Your task to perform on an android device: see creations saved in the google photos Image 0: 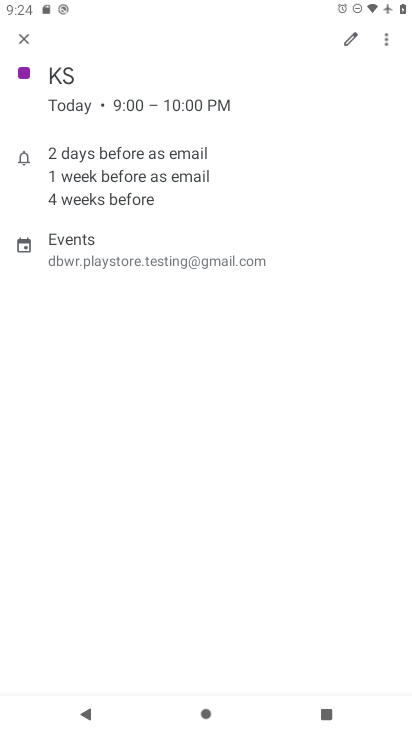
Step 0: press home button
Your task to perform on an android device: see creations saved in the google photos Image 1: 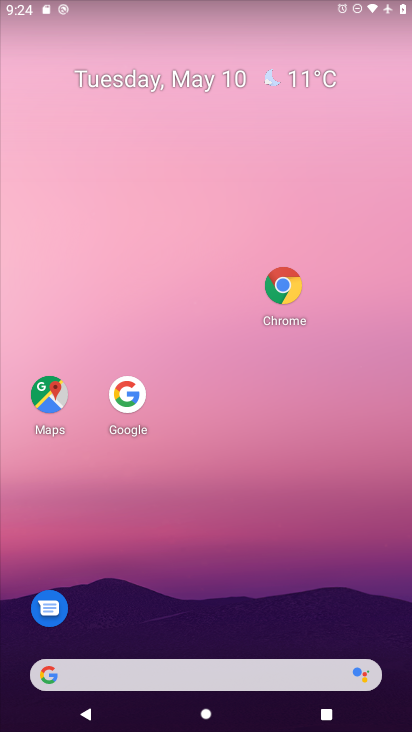
Step 1: drag from (206, 671) to (232, 167)
Your task to perform on an android device: see creations saved in the google photos Image 2: 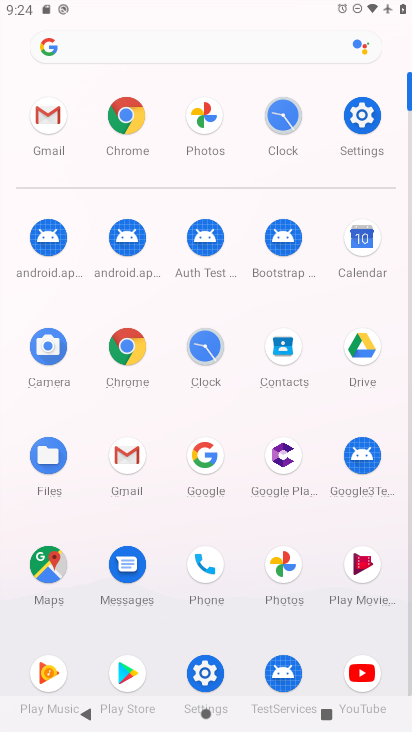
Step 2: click (285, 569)
Your task to perform on an android device: see creations saved in the google photos Image 3: 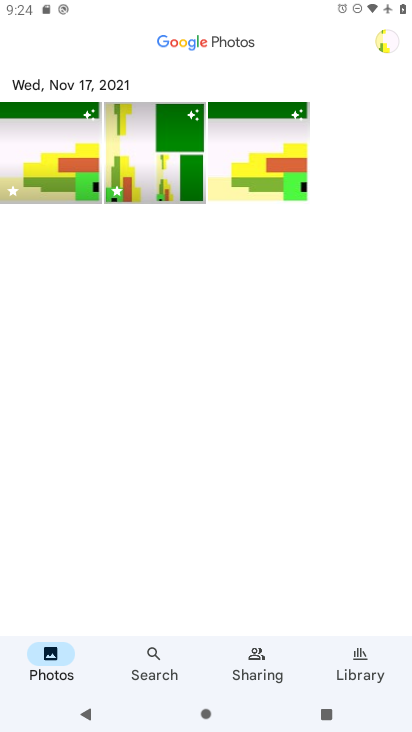
Step 3: click (349, 651)
Your task to perform on an android device: see creations saved in the google photos Image 4: 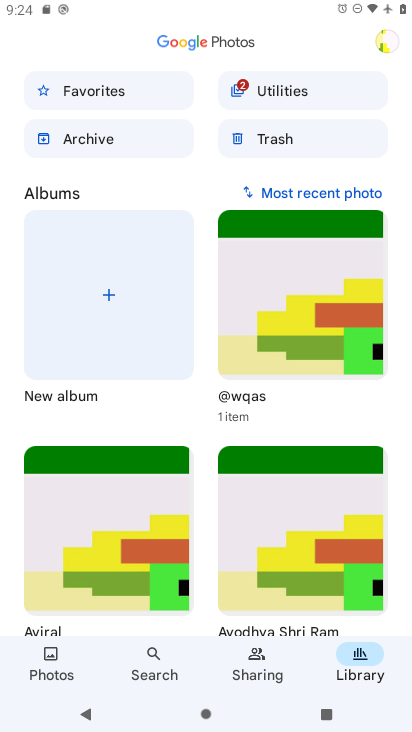
Step 4: click (276, 676)
Your task to perform on an android device: see creations saved in the google photos Image 5: 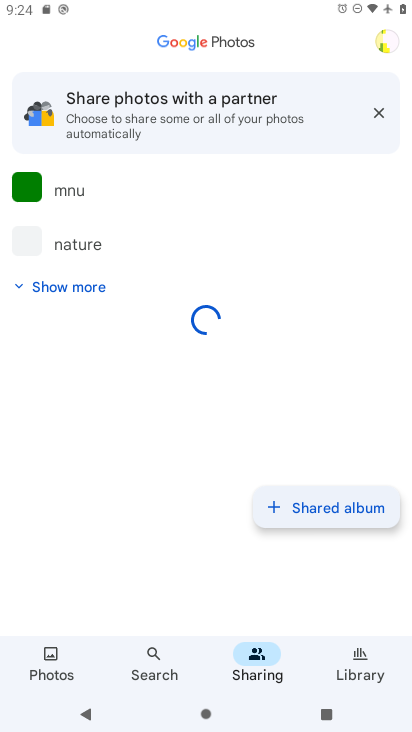
Step 5: click (149, 658)
Your task to perform on an android device: see creations saved in the google photos Image 6: 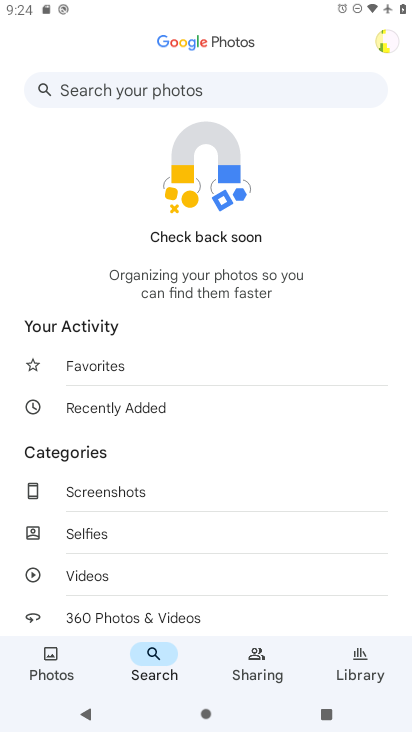
Step 6: drag from (175, 539) to (285, 171)
Your task to perform on an android device: see creations saved in the google photos Image 7: 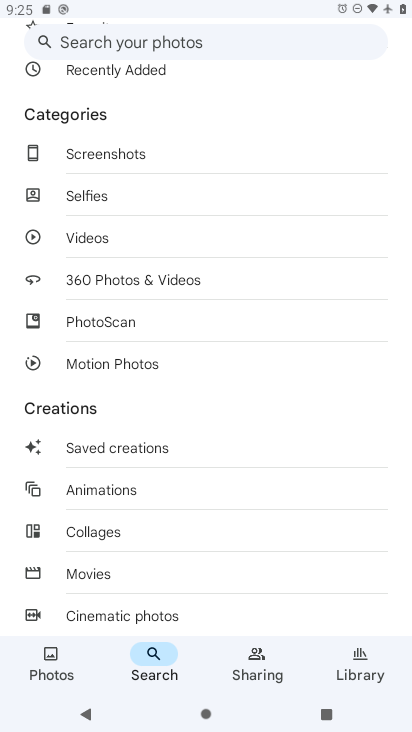
Step 7: click (103, 445)
Your task to perform on an android device: see creations saved in the google photos Image 8: 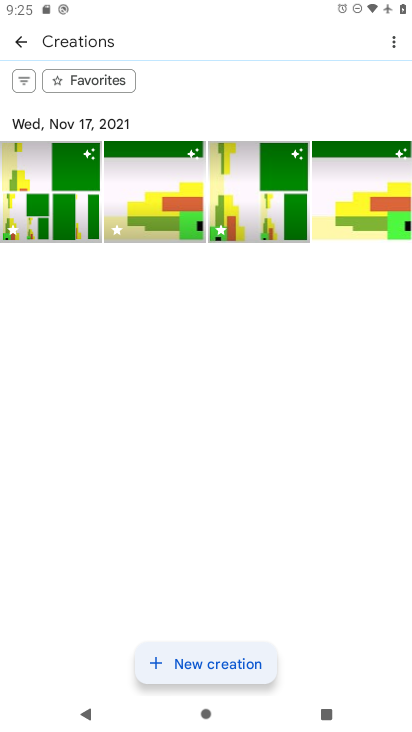
Step 8: task complete